Your task to perform on an android device: change timer sound Image 0: 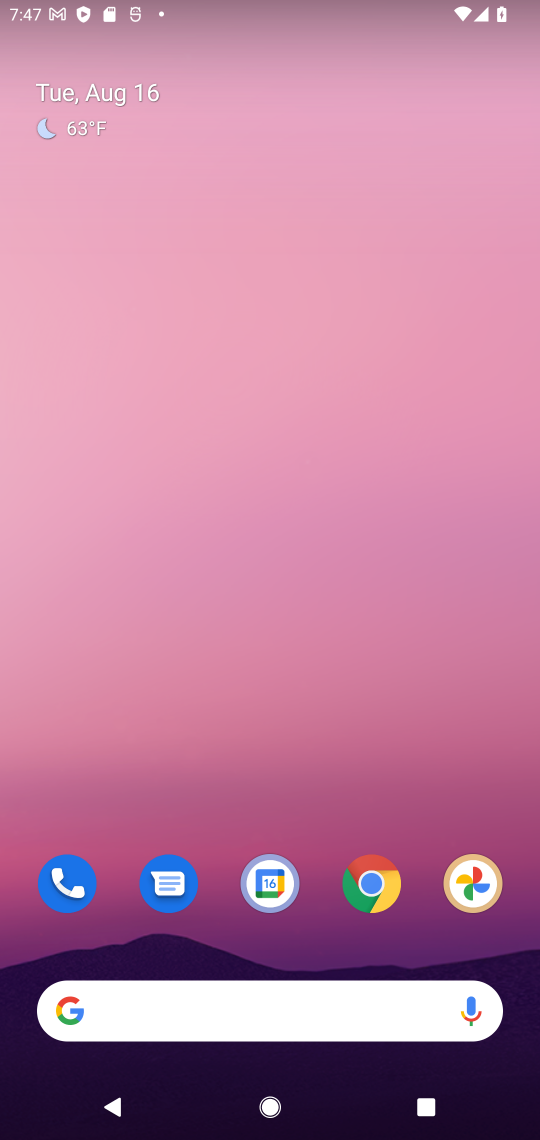
Step 0: drag from (495, 762) to (446, 85)
Your task to perform on an android device: change timer sound Image 1: 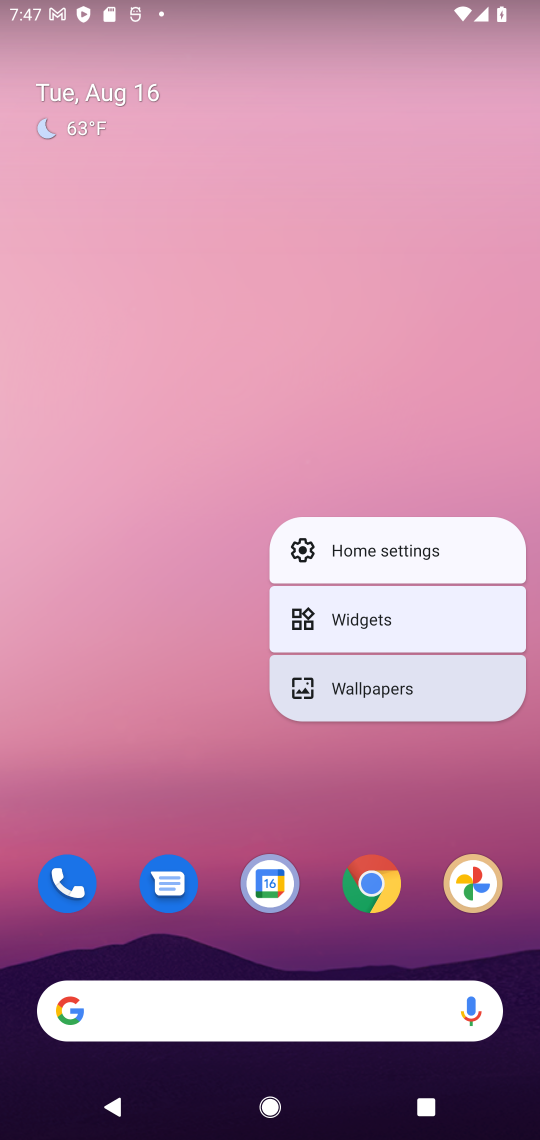
Step 1: click (388, 804)
Your task to perform on an android device: change timer sound Image 2: 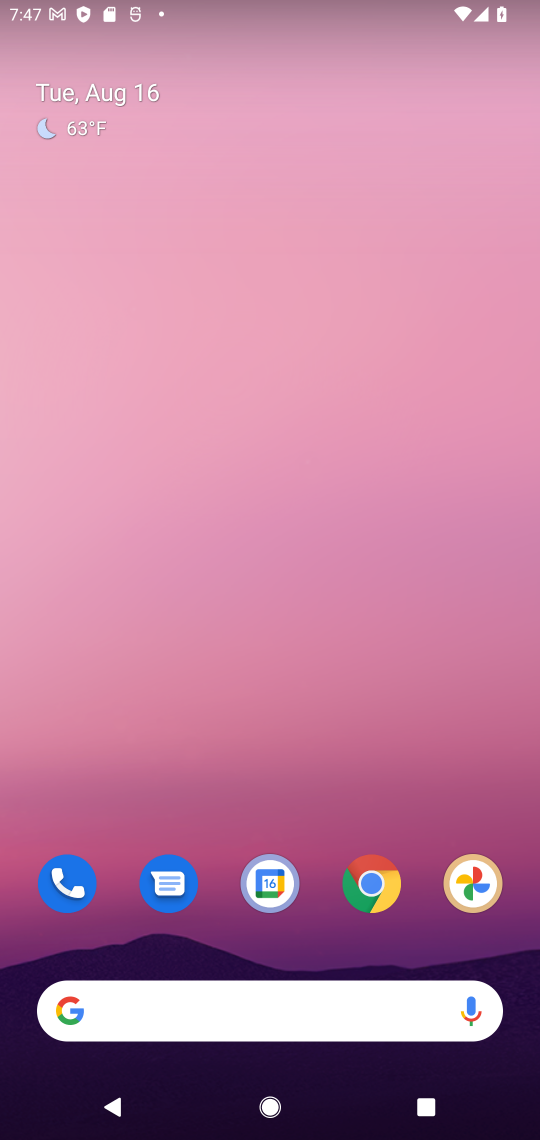
Step 2: drag from (388, 804) to (392, 0)
Your task to perform on an android device: change timer sound Image 3: 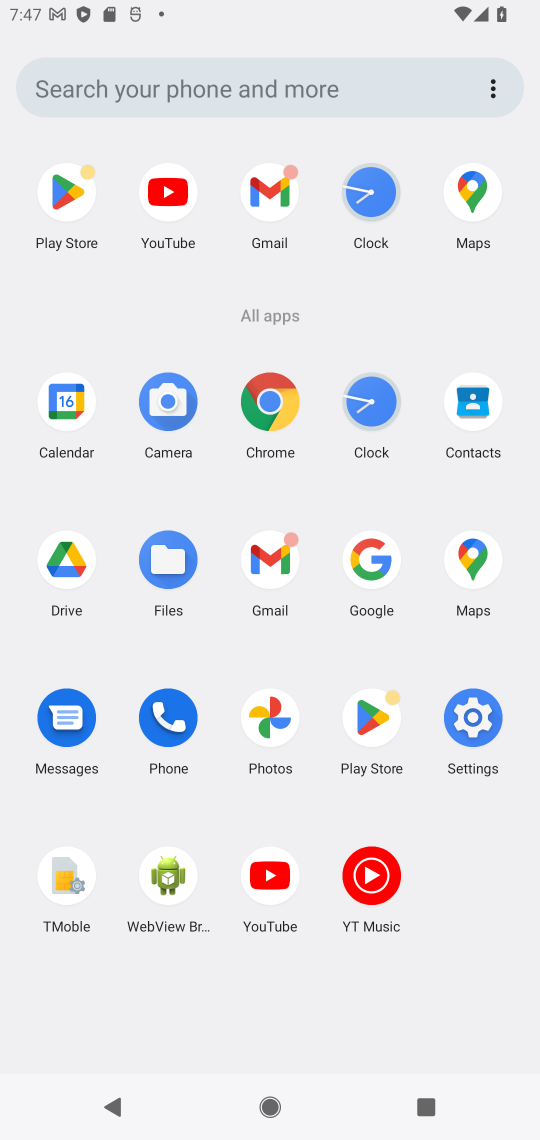
Step 3: click (363, 427)
Your task to perform on an android device: change timer sound Image 4: 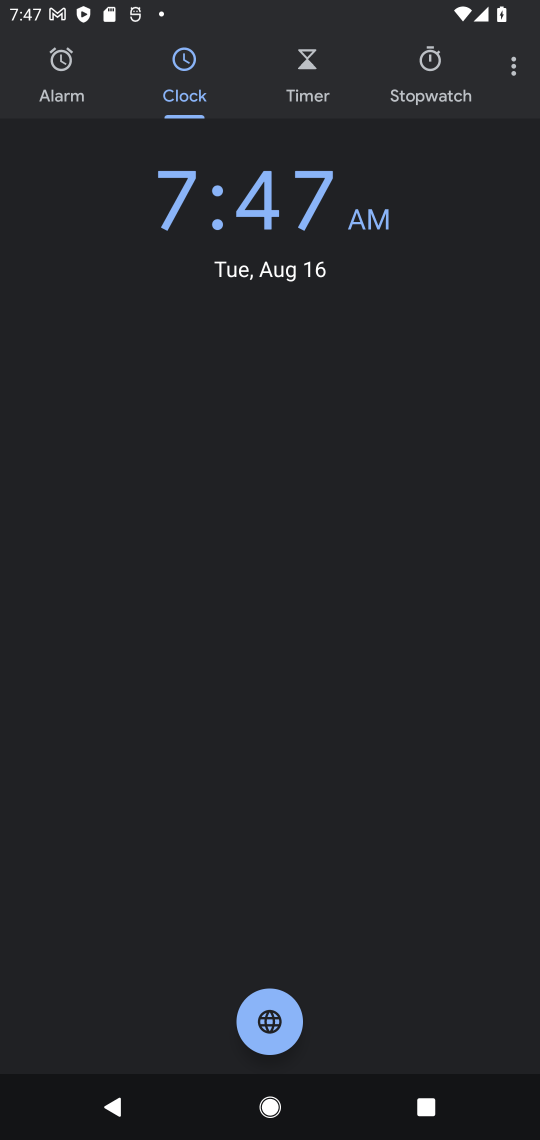
Step 4: click (510, 73)
Your task to perform on an android device: change timer sound Image 5: 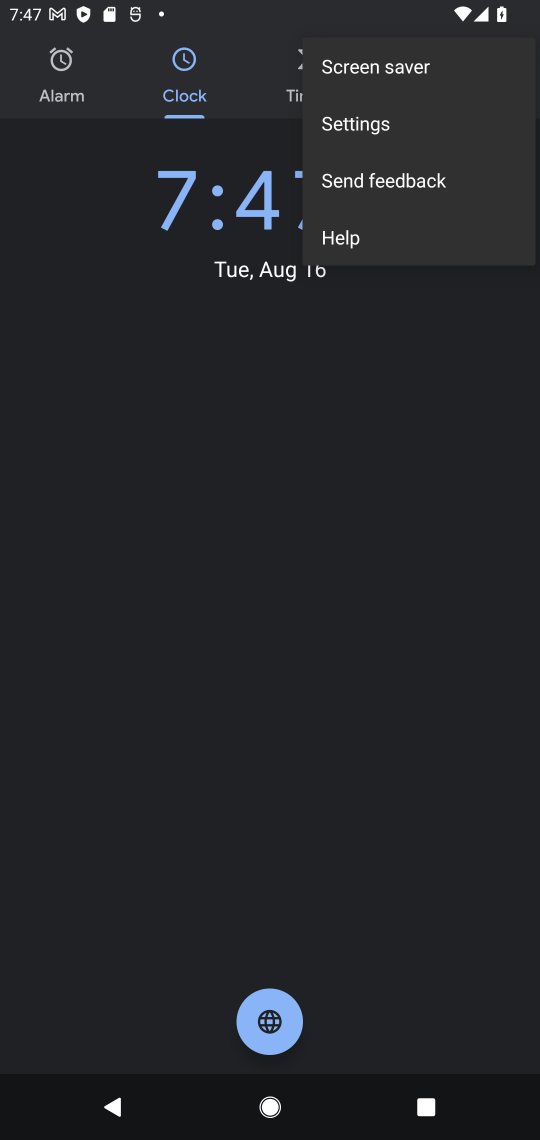
Step 5: click (368, 135)
Your task to perform on an android device: change timer sound Image 6: 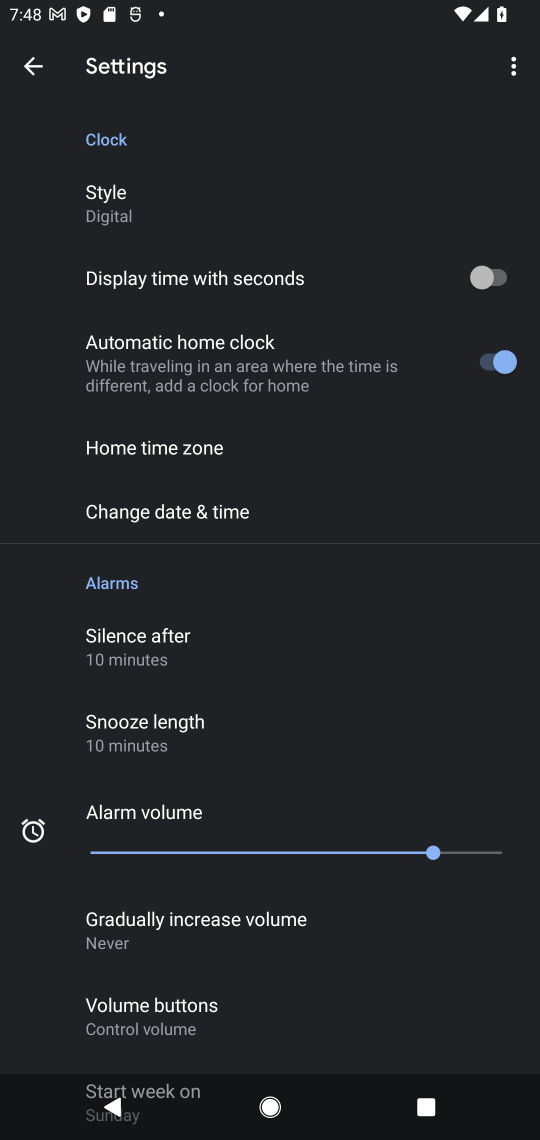
Step 6: drag from (335, 991) to (354, 507)
Your task to perform on an android device: change timer sound Image 7: 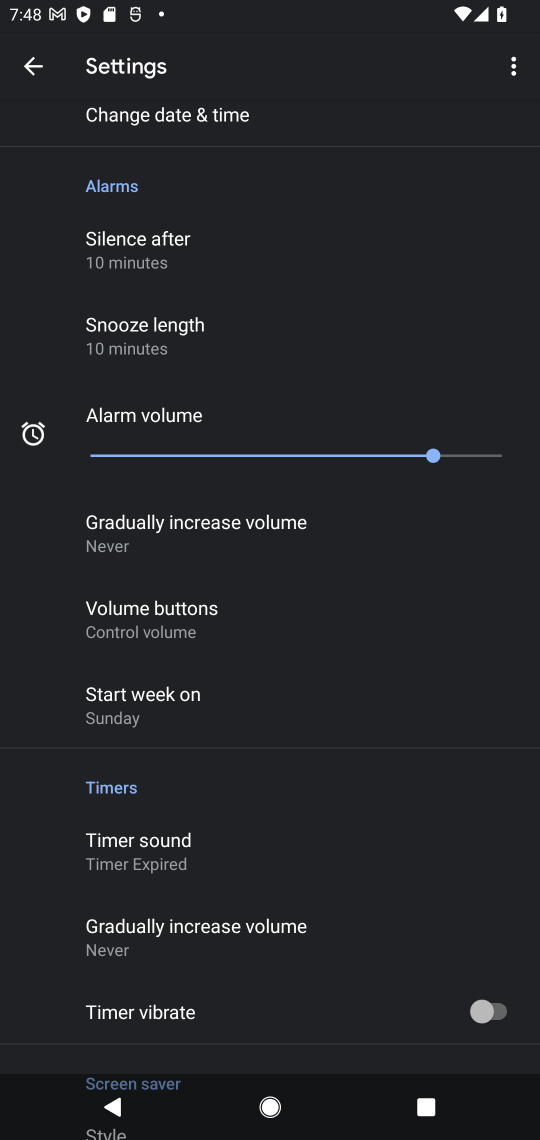
Step 7: click (202, 852)
Your task to perform on an android device: change timer sound Image 8: 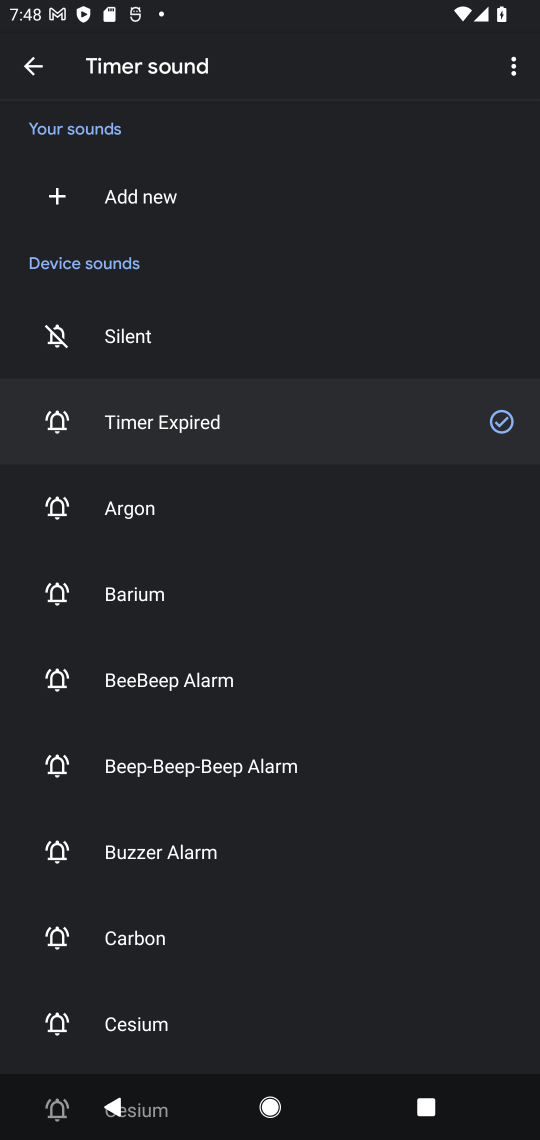
Step 8: click (325, 562)
Your task to perform on an android device: change timer sound Image 9: 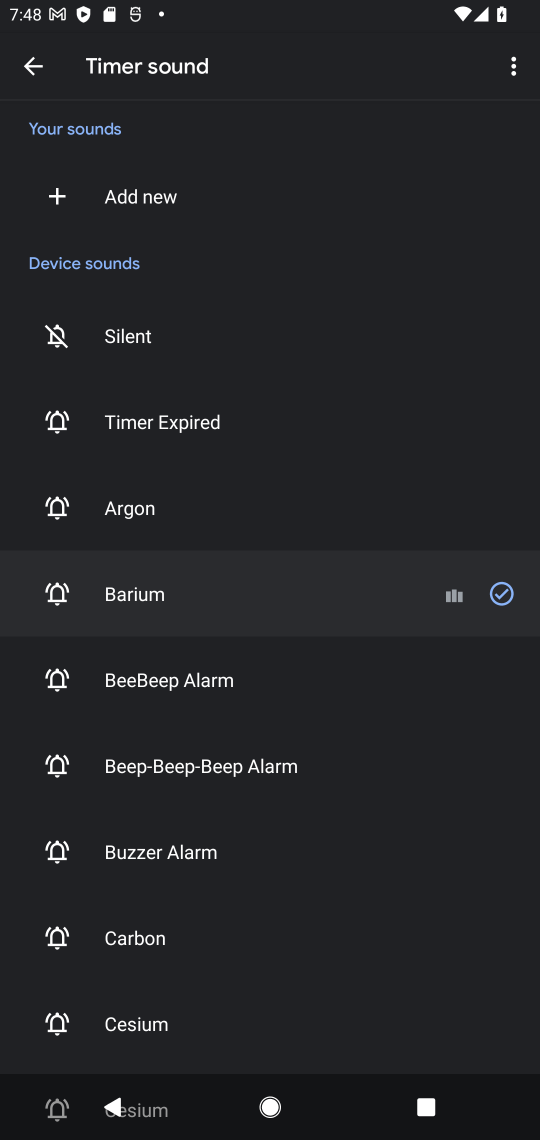
Step 9: task complete